Your task to perform on an android device: Is it going to rain today? Image 0: 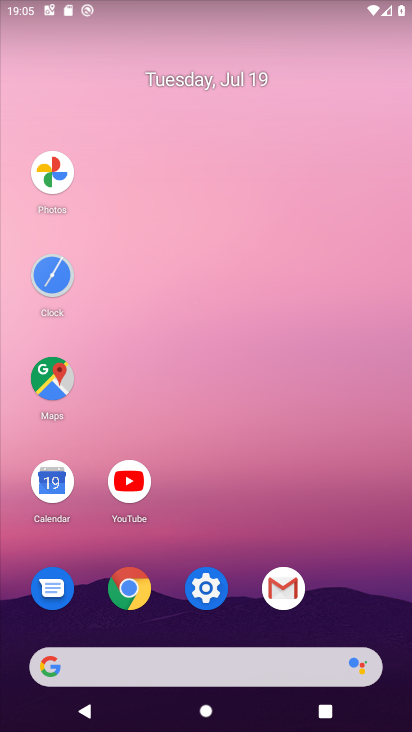
Step 0: click (188, 658)
Your task to perform on an android device: Is it going to rain today? Image 1: 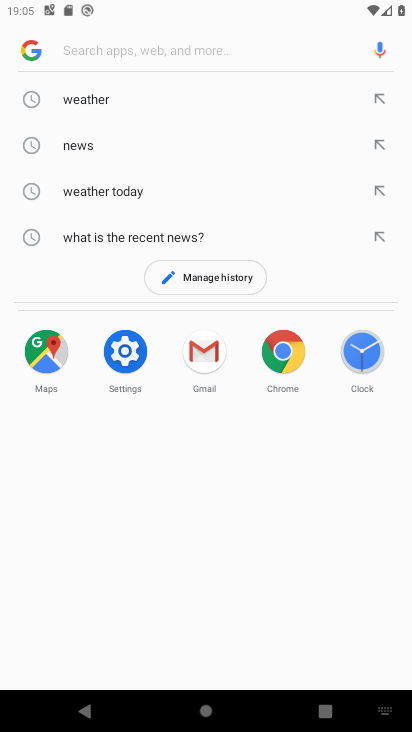
Step 1: click (104, 94)
Your task to perform on an android device: Is it going to rain today? Image 2: 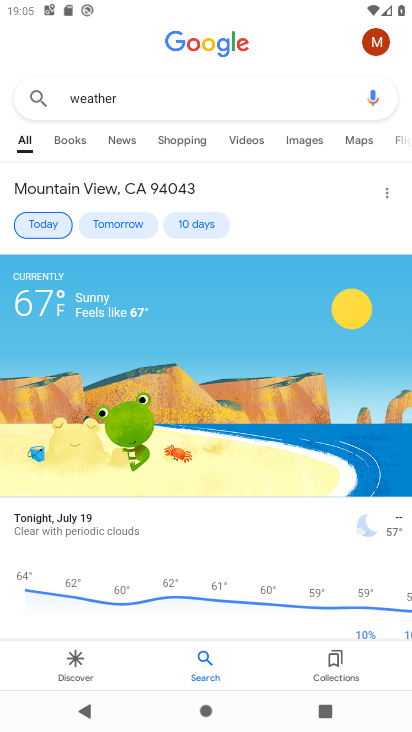
Step 2: click (197, 224)
Your task to perform on an android device: Is it going to rain today? Image 3: 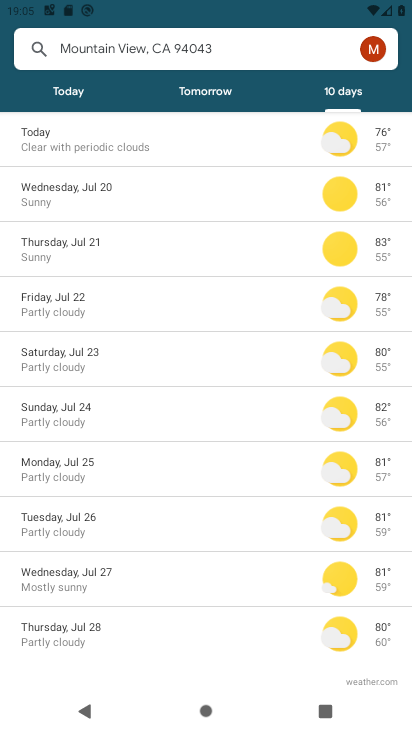
Step 3: task complete